Your task to perform on an android device: find photos in the google photos app Image 0: 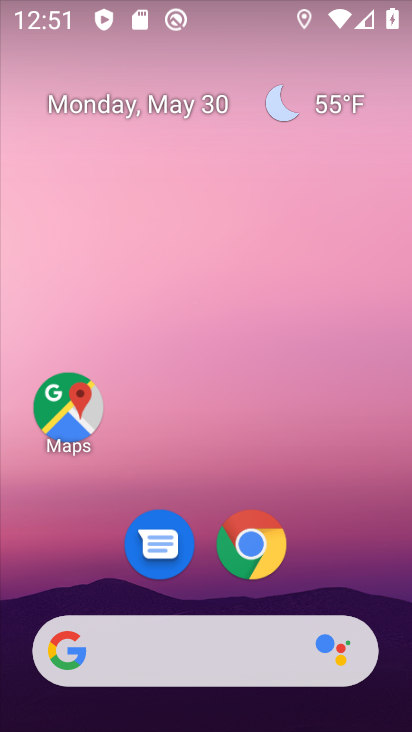
Step 0: drag from (367, 588) to (312, 69)
Your task to perform on an android device: find photos in the google photos app Image 1: 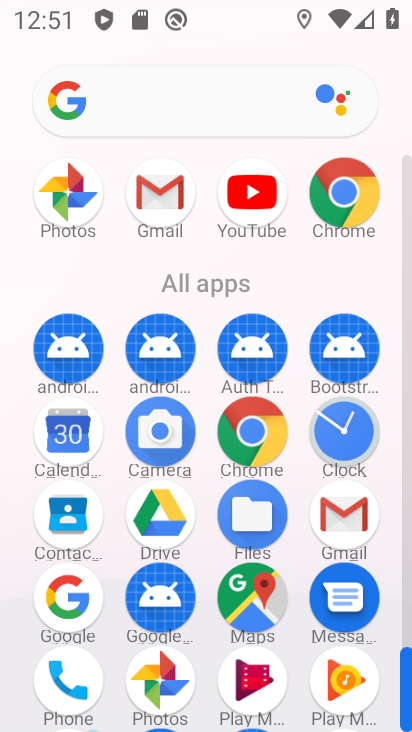
Step 1: click (157, 687)
Your task to perform on an android device: find photos in the google photos app Image 2: 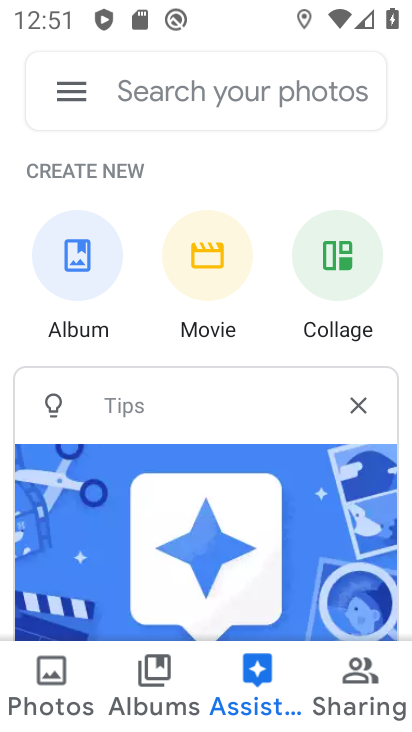
Step 2: click (61, 666)
Your task to perform on an android device: find photos in the google photos app Image 3: 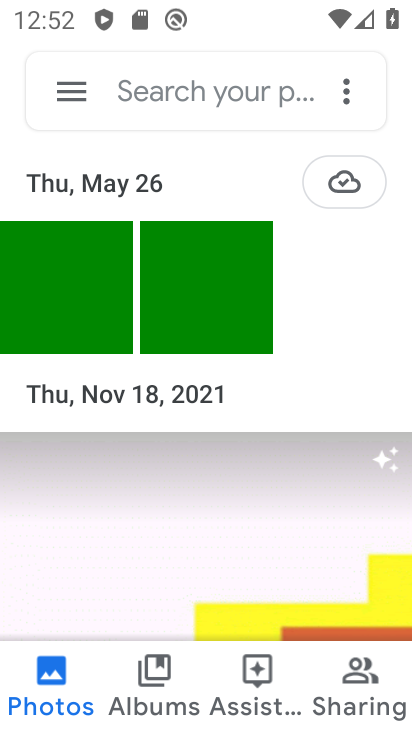
Step 3: task complete